Your task to perform on an android device: Open internet settings Image 0: 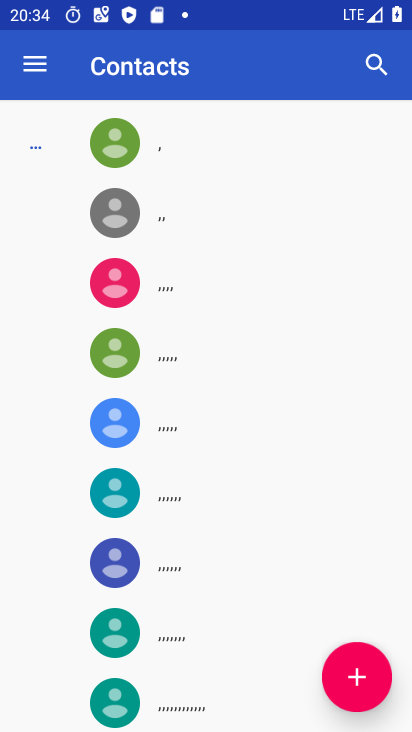
Step 0: drag from (220, 7) to (262, 531)
Your task to perform on an android device: Open internet settings Image 1: 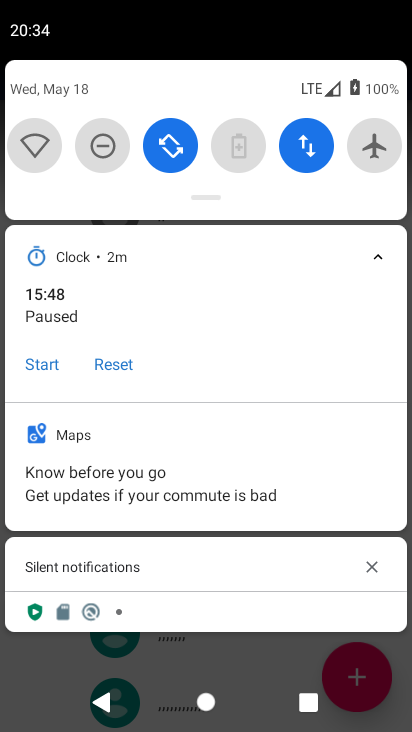
Step 1: click (318, 154)
Your task to perform on an android device: Open internet settings Image 2: 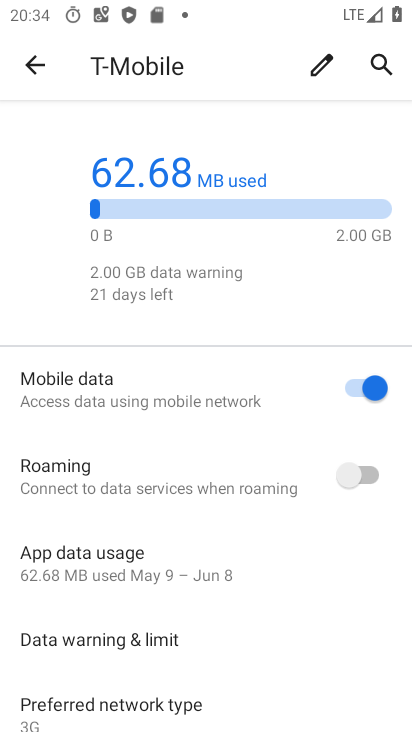
Step 2: task complete